Your task to perform on an android device: change notifications settings Image 0: 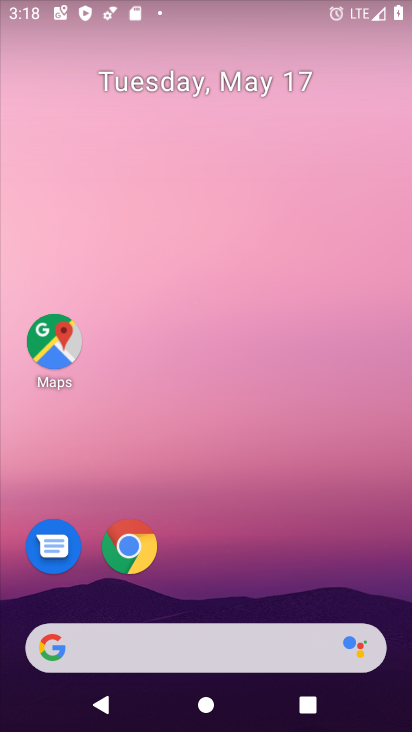
Step 0: press home button
Your task to perform on an android device: change notifications settings Image 1: 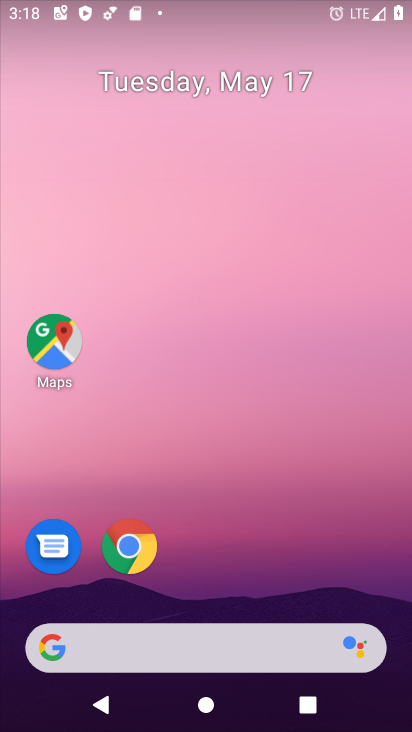
Step 1: drag from (240, 561) to (327, 0)
Your task to perform on an android device: change notifications settings Image 2: 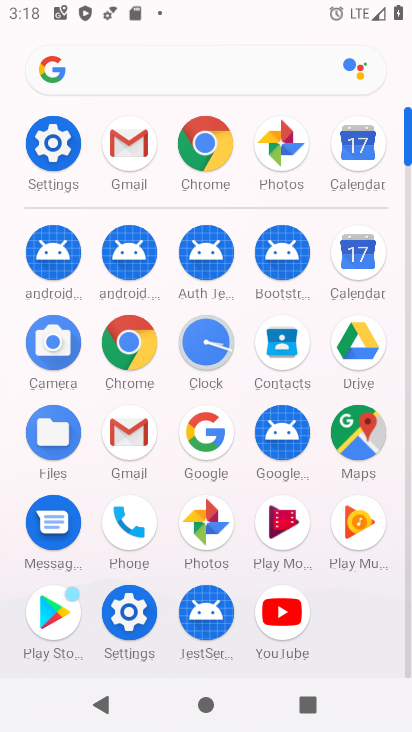
Step 2: click (41, 134)
Your task to perform on an android device: change notifications settings Image 3: 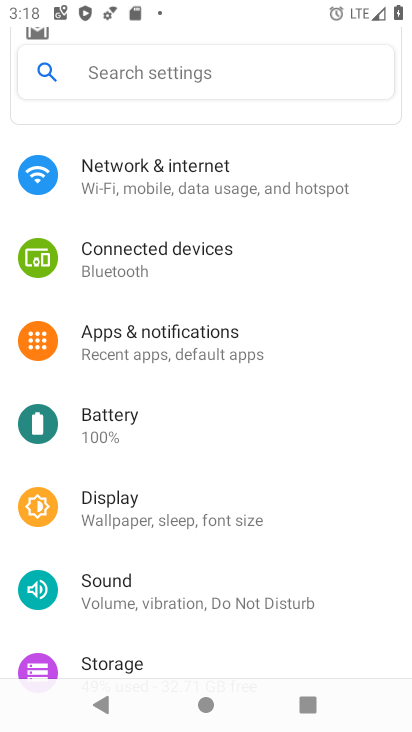
Step 3: click (163, 347)
Your task to perform on an android device: change notifications settings Image 4: 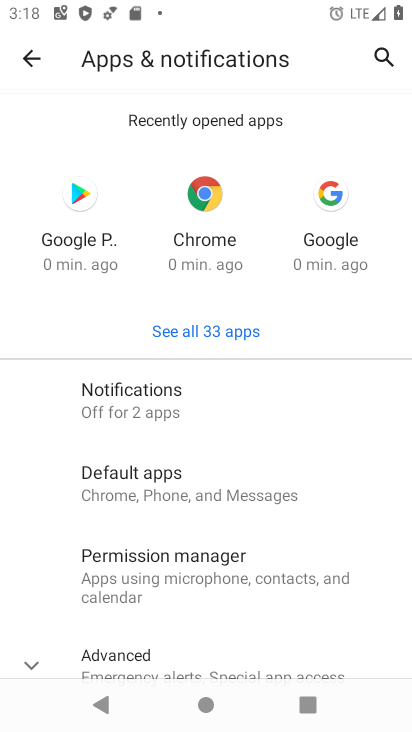
Step 4: click (186, 406)
Your task to perform on an android device: change notifications settings Image 5: 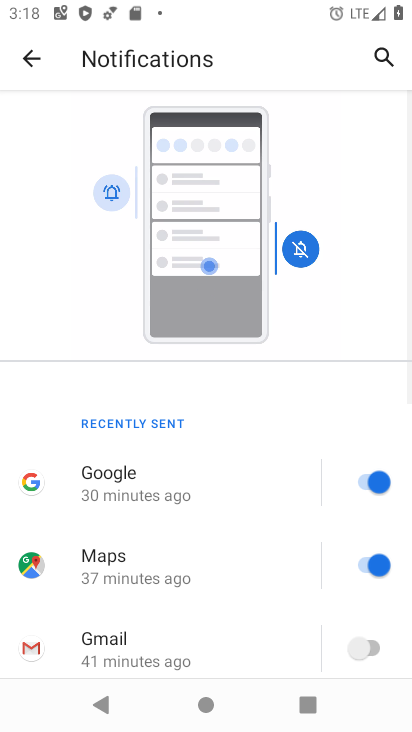
Step 5: click (256, 493)
Your task to perform on an android device: change notifications settings Image 6: 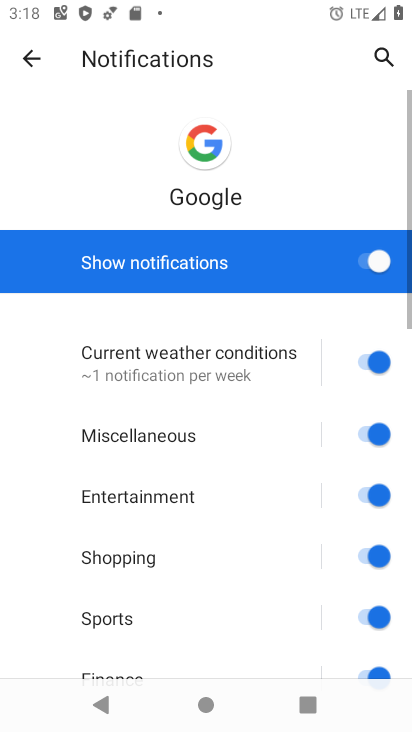
Step 6: click (21, 56)
Your task to perform on an android device: change notifications settings Image 7: 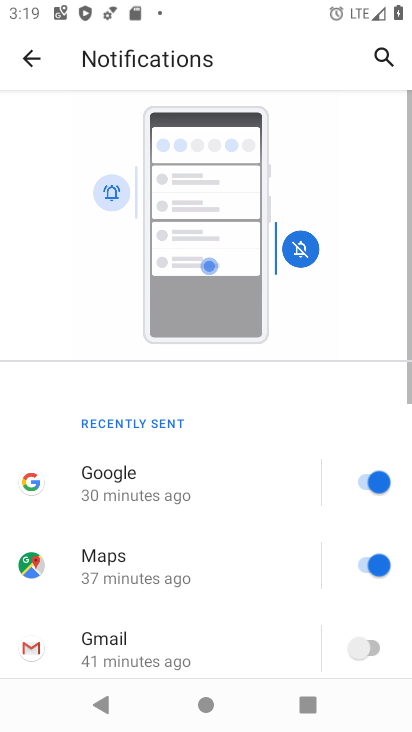
Step 7: click (374, 473)
Your task to perform on an android device: change notifications settings Image 8: 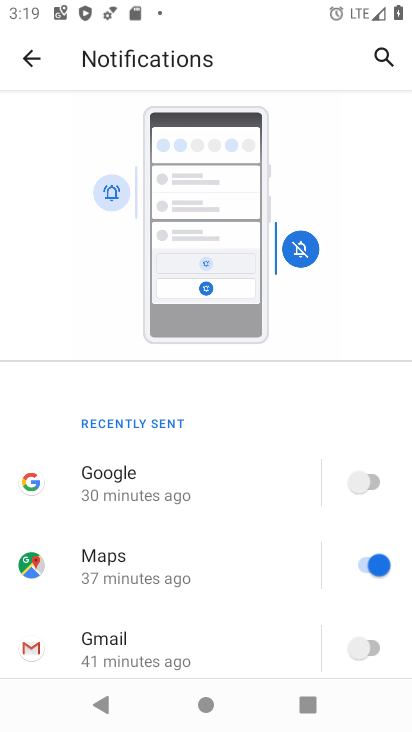
Step 8: click (374, 557)
Your task to perform on an android device: change notifications settings Image 9: 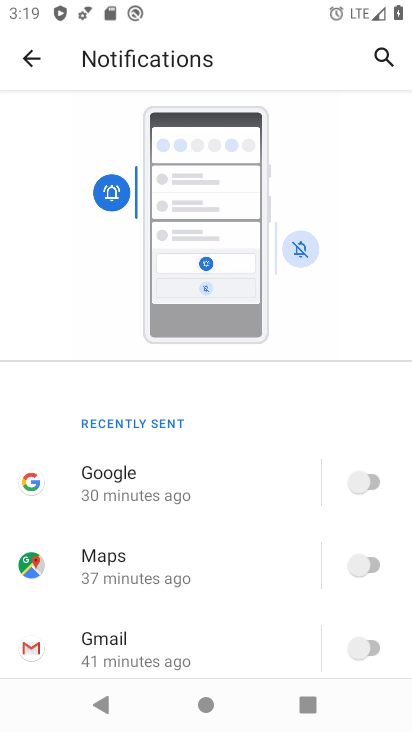
Step 9: drag from (326, 614) to (352, 221)
Your task to perform on an android device: change notifications settings Image 10: 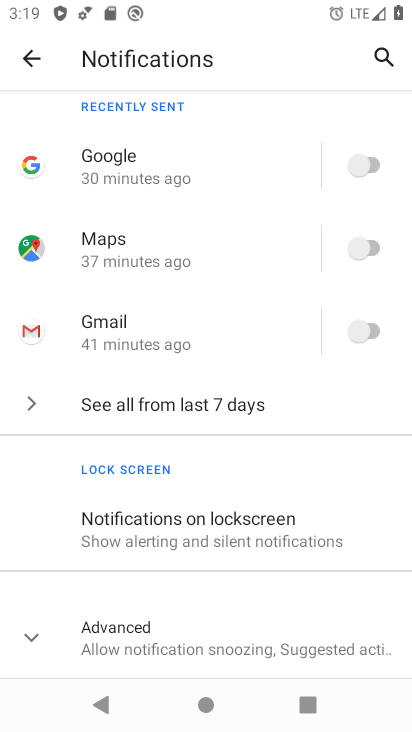
Step 10: click (370, 327)
Your task to perform on an android device: change notifications settings Image 11: 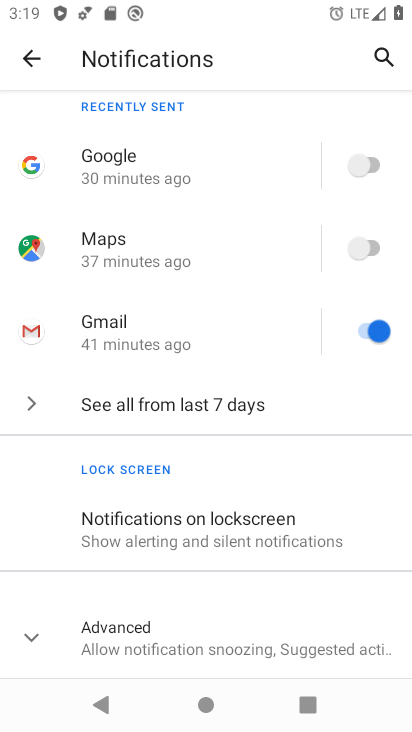
Step 11: drag from (260, 624) to (281, 369)
Your task to perform on an android device: change notifications settings Image 12: 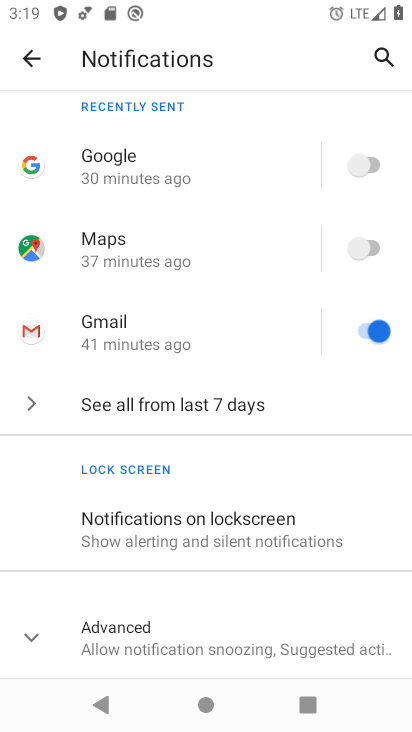
Step 12: click (274, 634)
Your task to perform on an android device: change notifications settings Image 13: 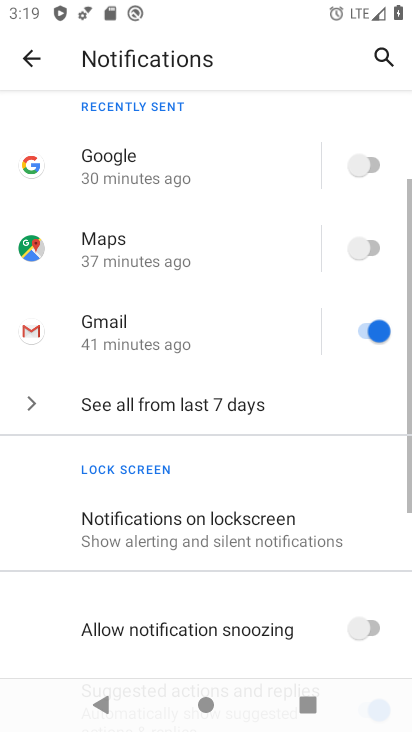
Step 13: drag from (269, 603) to (304, 77)
Your task to perform on an android device: change notifications settings Image 14: 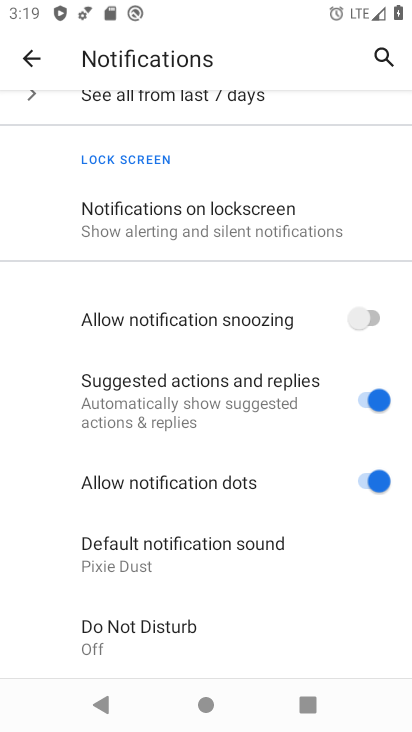
Step 14: click (373, 416)
Your task to perform on an android device: change notifications settings Image 15: 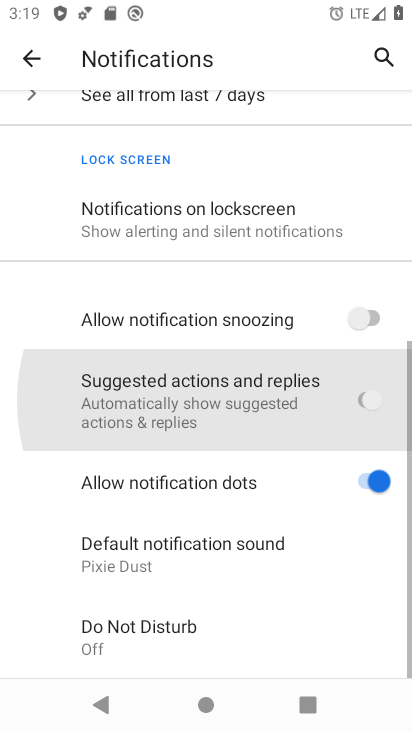
Step 15: click (367, 496)
Your task to perform on an android device: change notifications settings Image 16: 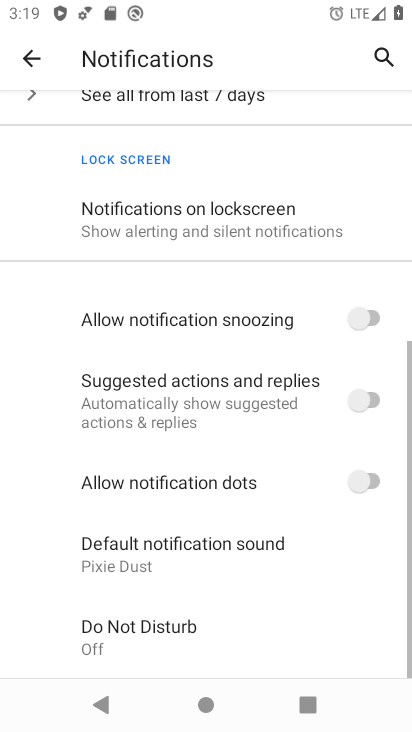
Step 16: click (371, 322)
Your task to perform on an android device: change notifications settings Image 17: 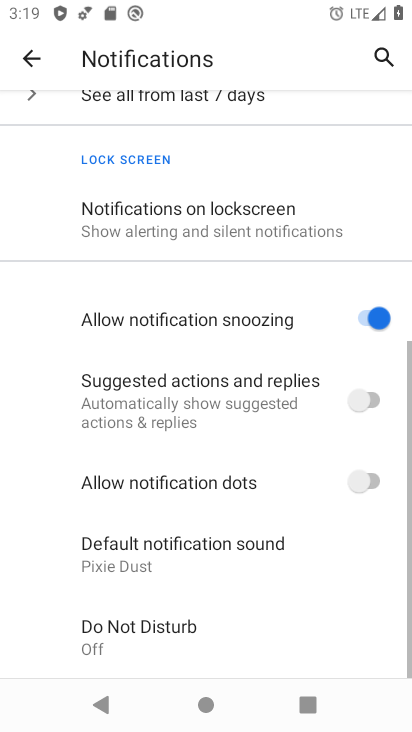
Step 17: task complete